Your task to perform on an android device: open chrome and create a bookmark for the current page Image 0: 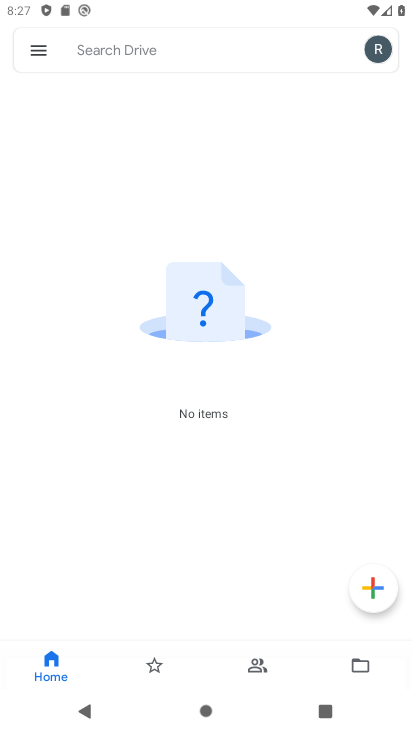
Step 0: press home button
Your task to perform on an android device: open chrome and create a bookmark for the current page Image 1: 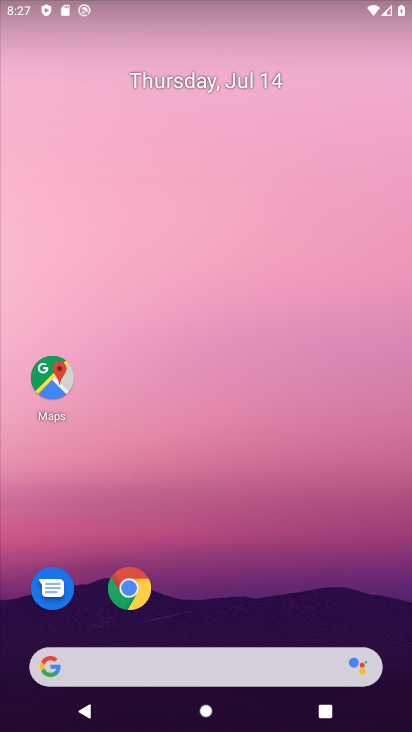
Step 1: click (135, 591)
Your task to perform on an android device: open chrome and create a bookmark for the current page Image 2: 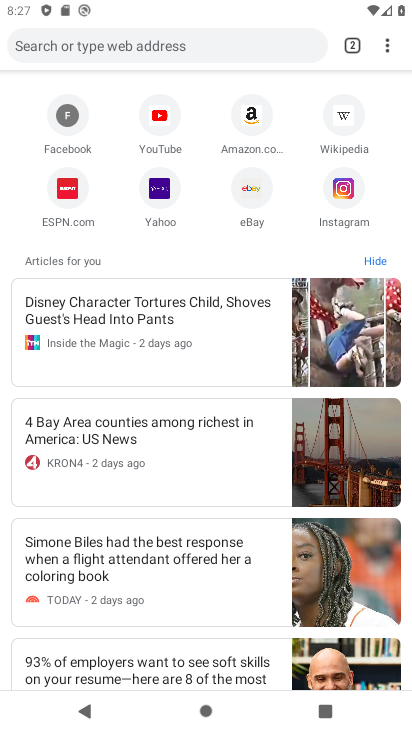
Step 2: click (384, 47)
Your task to perform on an android device: open chrome and create a bookmark for the current page Image 3: 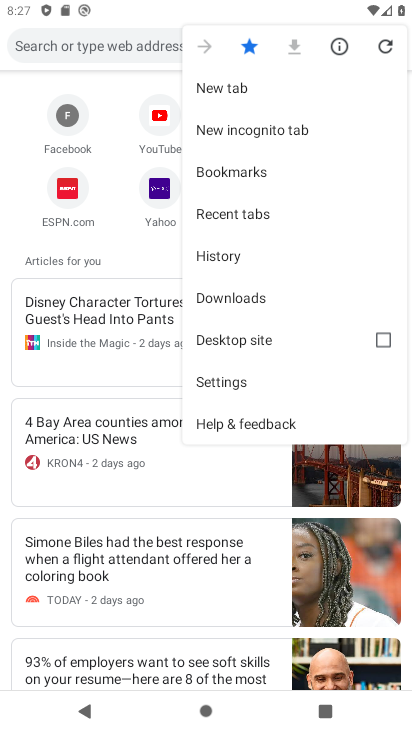
Step 3: task complete